Your task to perform on an android device: turn off notifications settings in the gmail app Image 0: 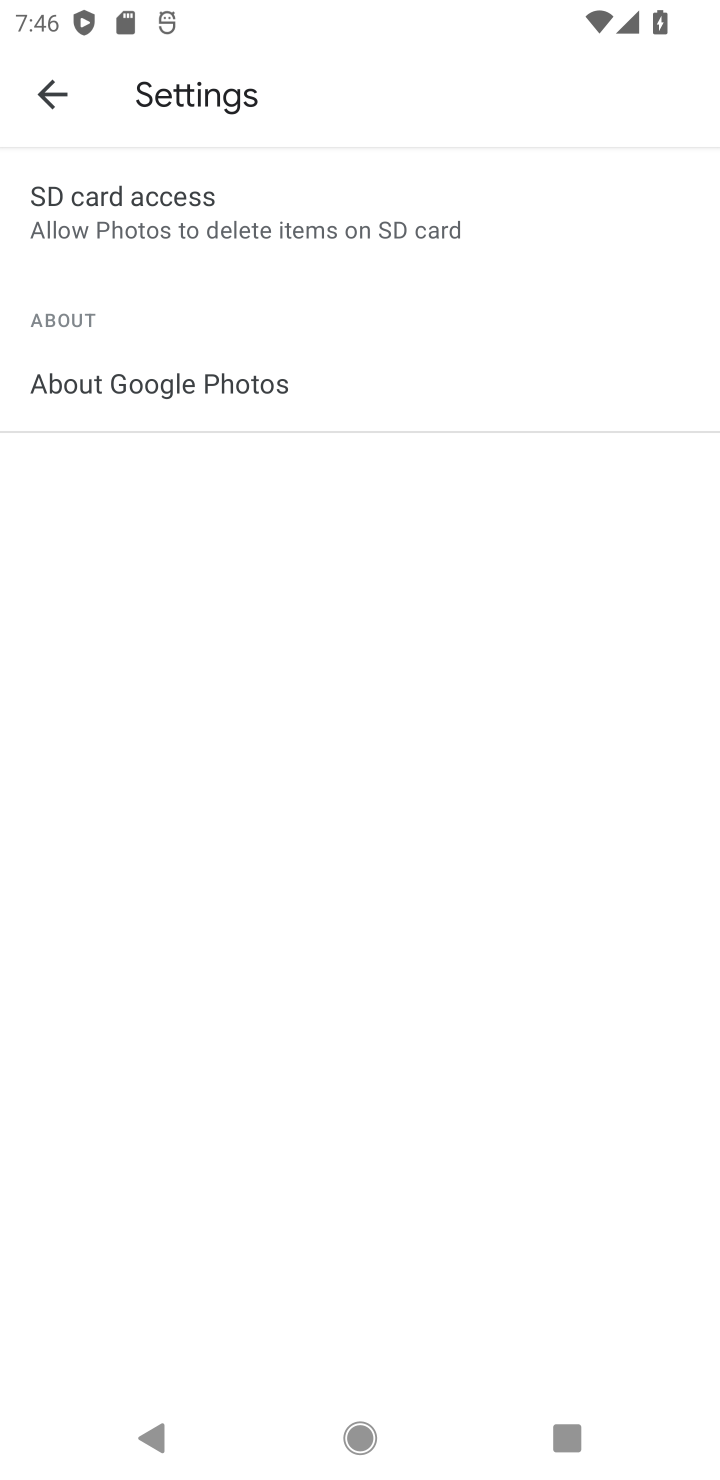
Step 0: press home button
Your task to perform on an android device: turn off notifications settings in the gmail app Image 1: 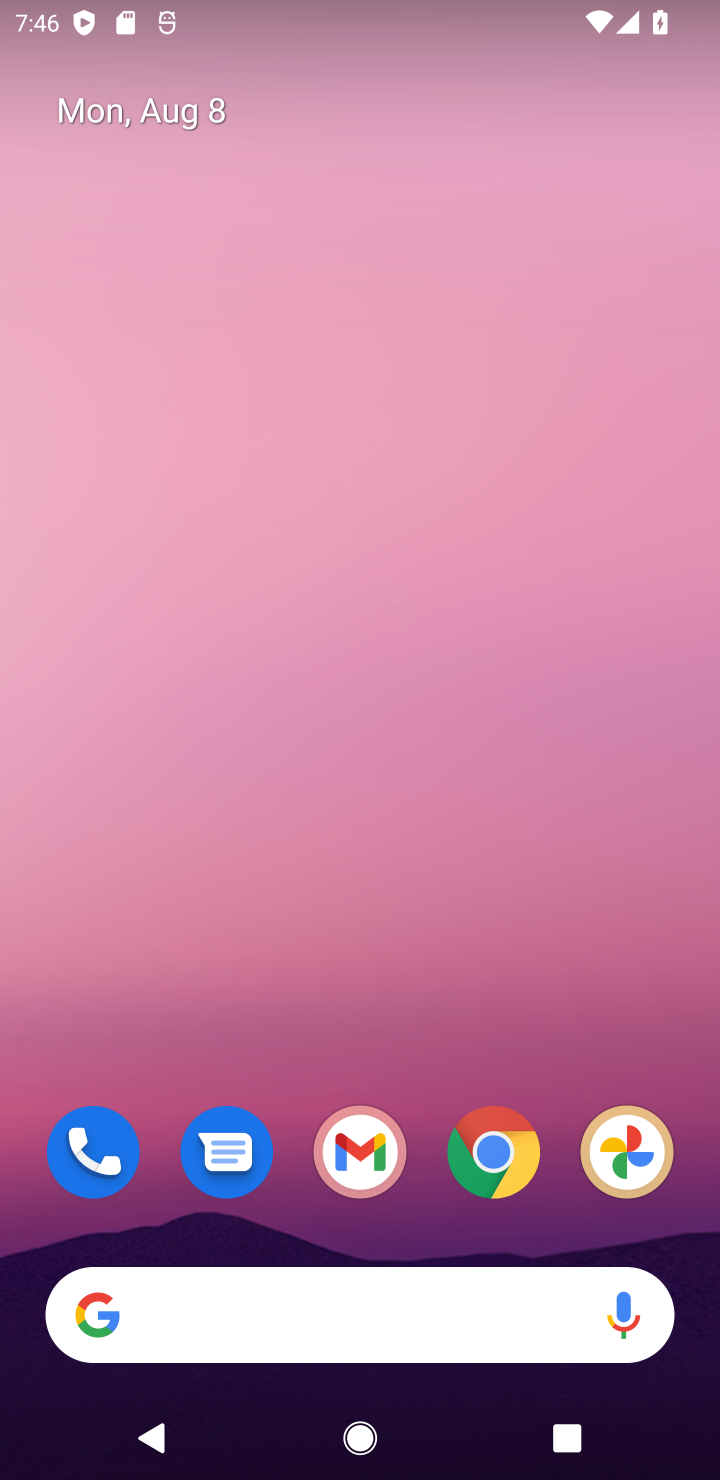
Step 1: click (360, 1147)
Your task to perform on an android device: turn off notifications settings in the gmail app Image 2: 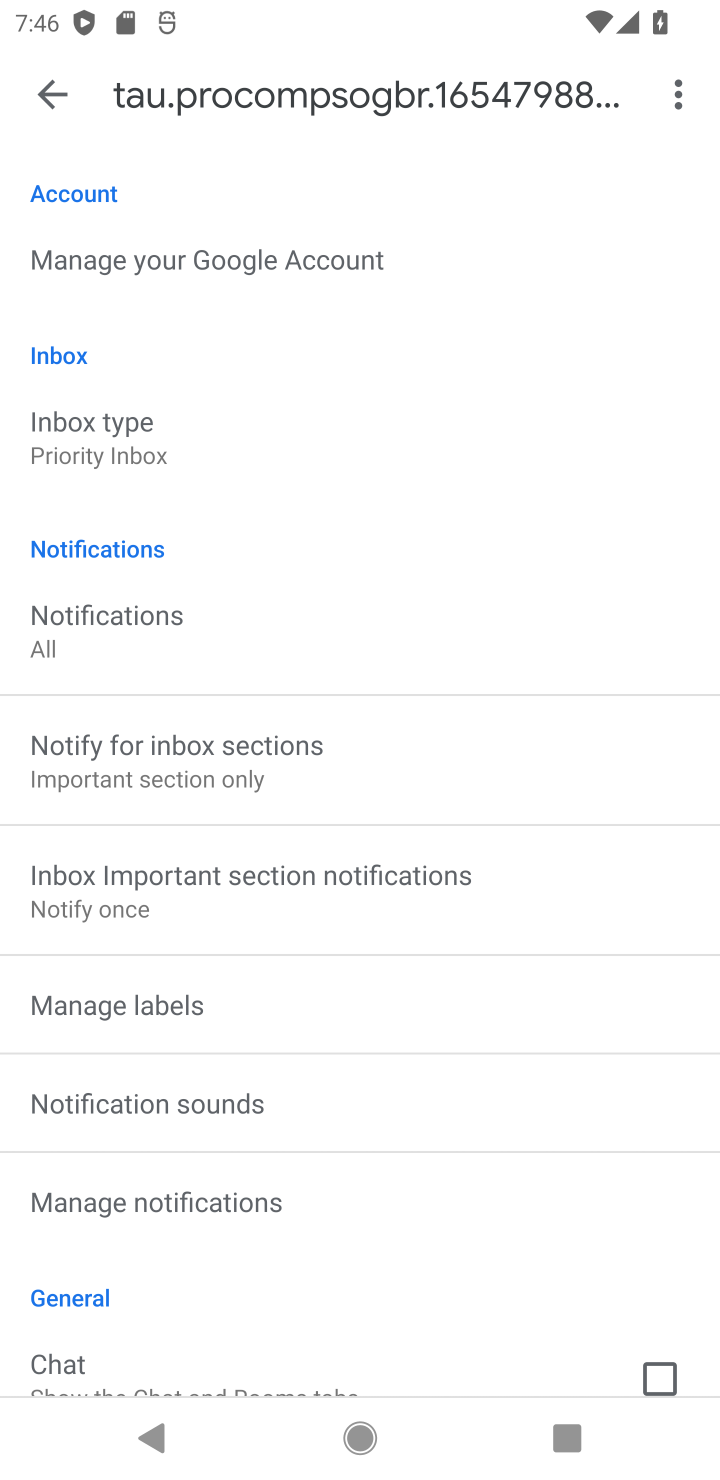
Step 2: click (57, 83)
Your task to perform on an android device: turn off notifications settings in the gmail app Image 3: 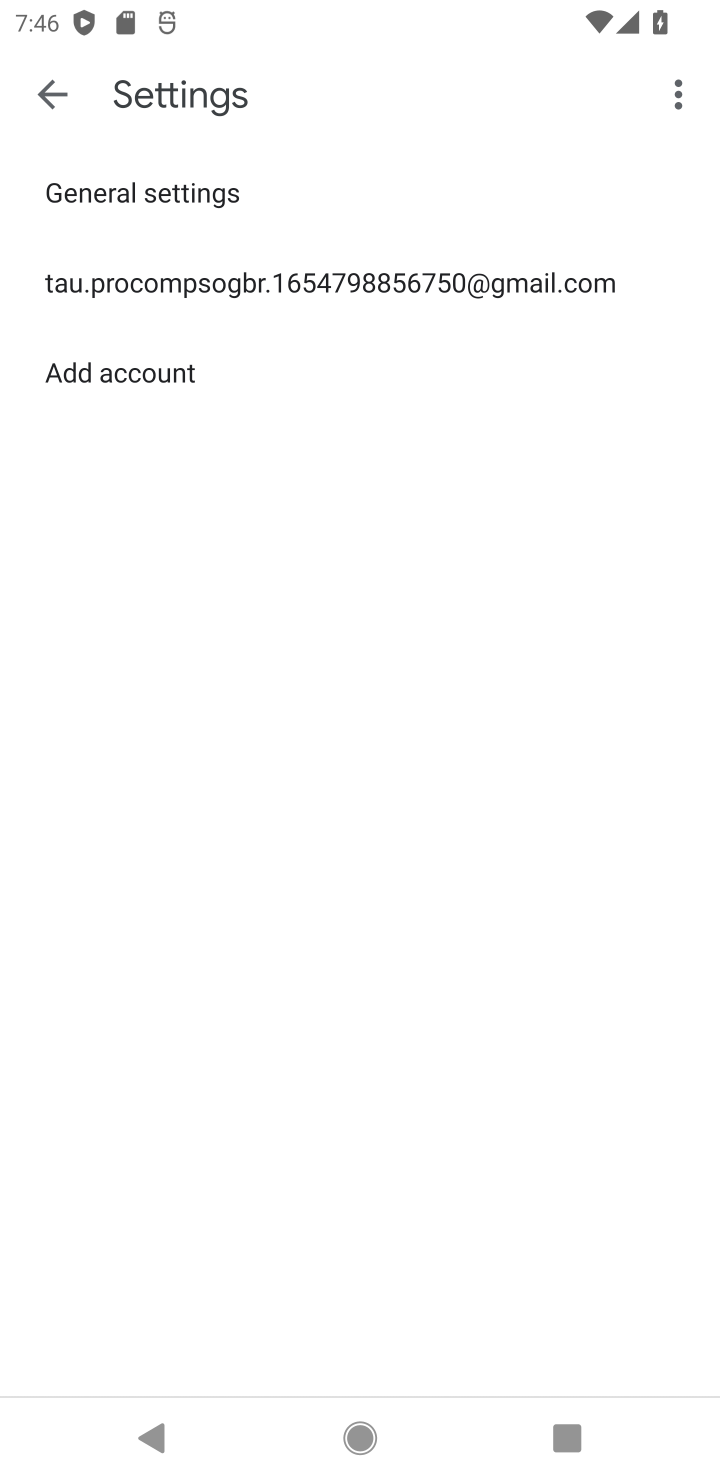
Step 3: click (144, 174)
Your task to perform on an android device: turn off notifications settings in the gmail app Image 4: 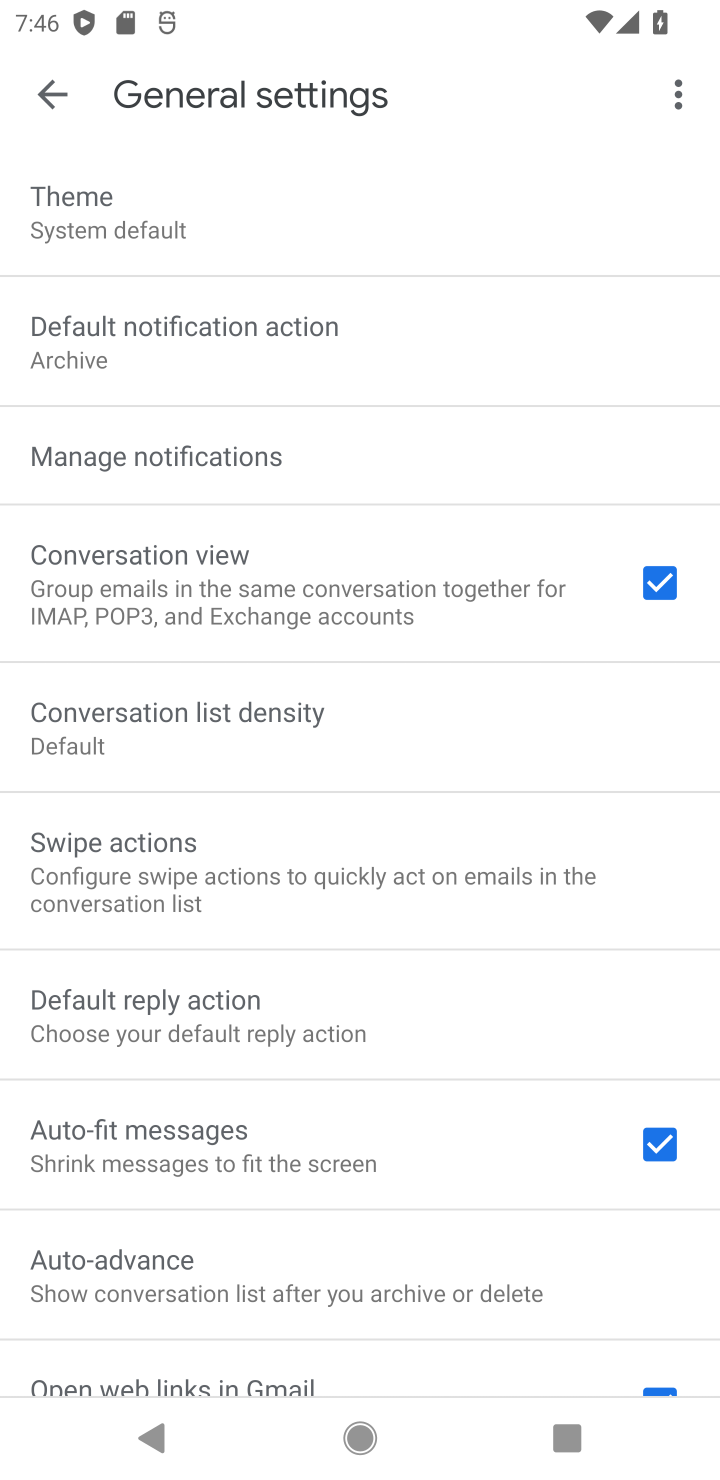
Step 4: click (209, 460)
Your task to perform on an android device: turn off notifications settings in the gmail app Image 5: 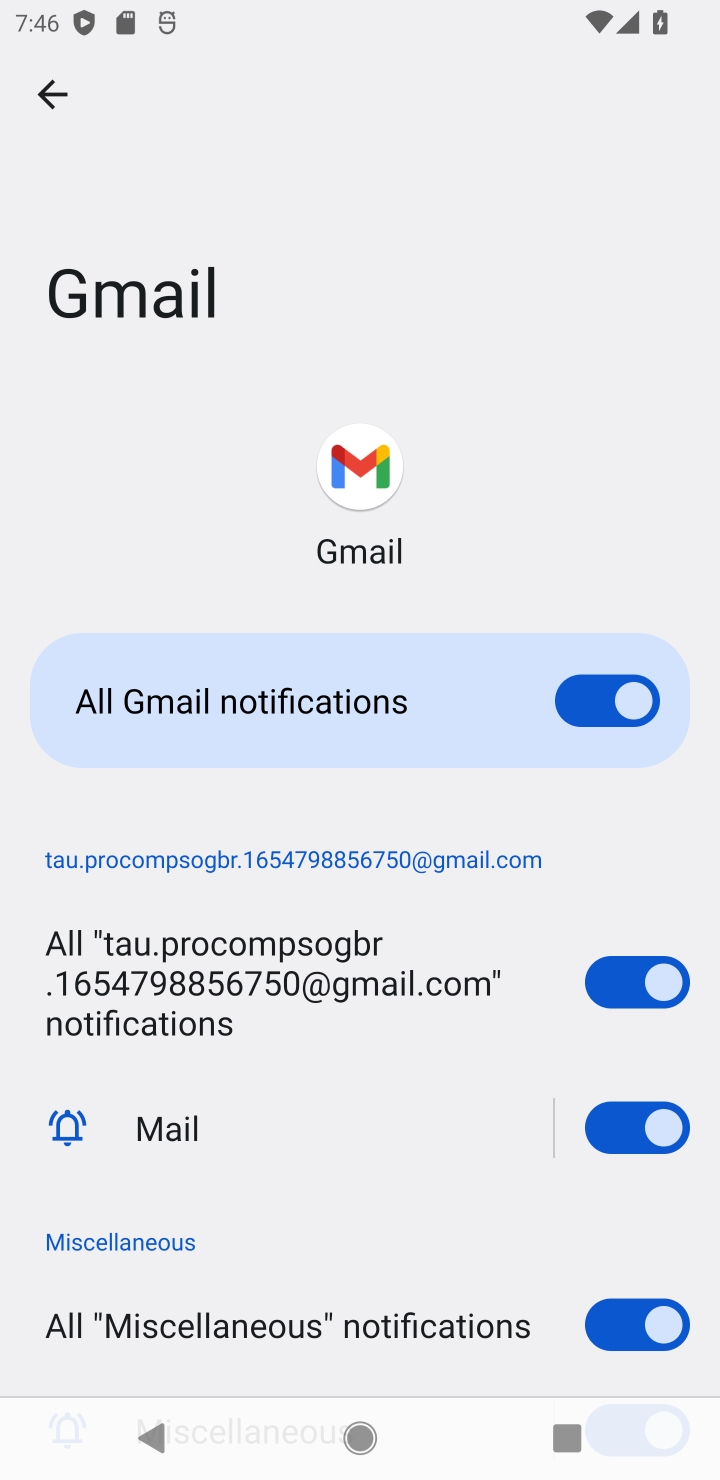
Step 5: click (622, 697)
Your task to perform on an android device: turn off notifications settings in the gmail app Image 6: 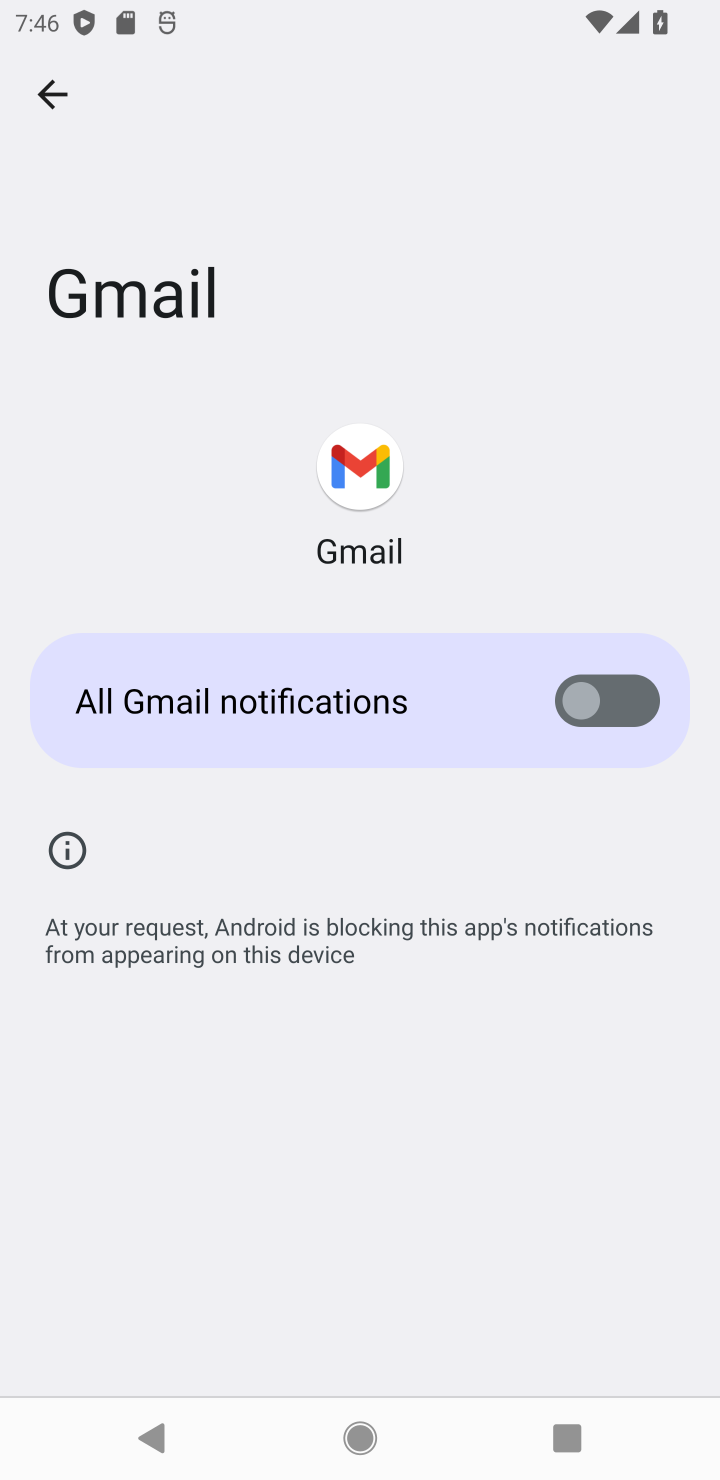
Step 6: task complete